Your task to perform on an android device: Open my contact list Image 0: 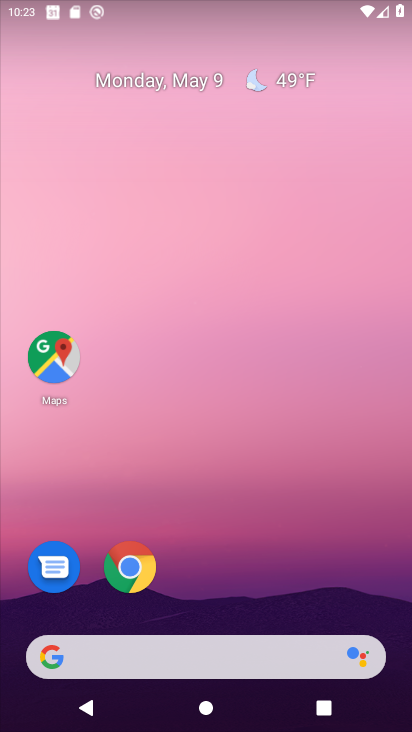
Step 0: drag from (188, 636) to (196, 249)
Your task to perform on an android device: Open my contact list Image 1: 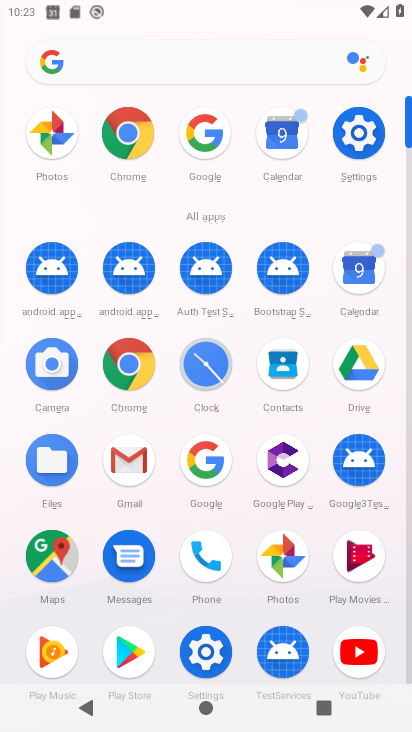
Step 1: click (268, 355)
Your task to perform on an android device: Open my contact list Image 2: 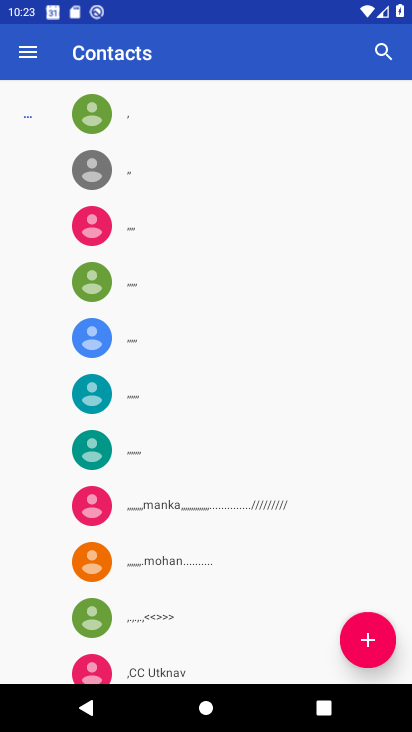
Step 2: task complete